Your task to perform on an android device: turn notification dots on Image 0: 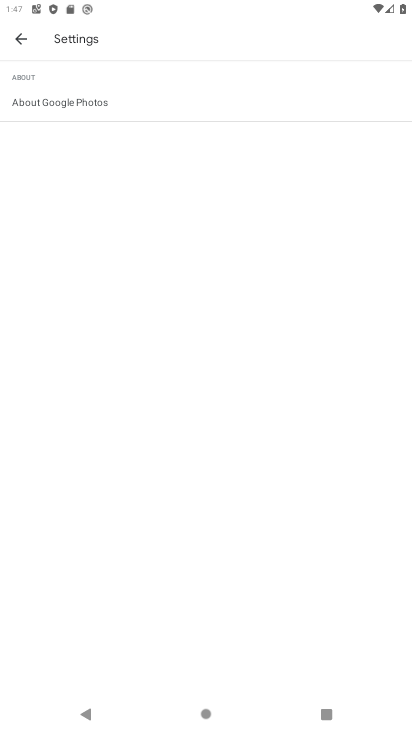
Step 0: press home button
Your task to perform on an android device: turn notification dots on Image 1: 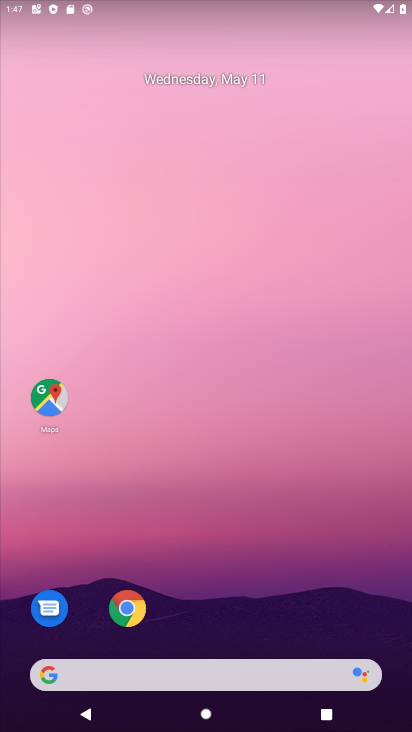
Step 1: drag from (296, 565) to (325, 268)
Your task to perform on an android device: turn notification dots on Image 2: 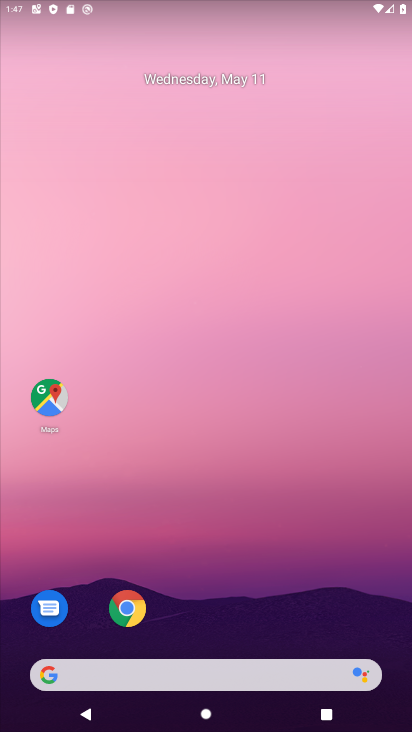
Step 2: drag from (315, 576) to (332, 179)
Your task to perform on an android device: turn notification dots on Image 3: 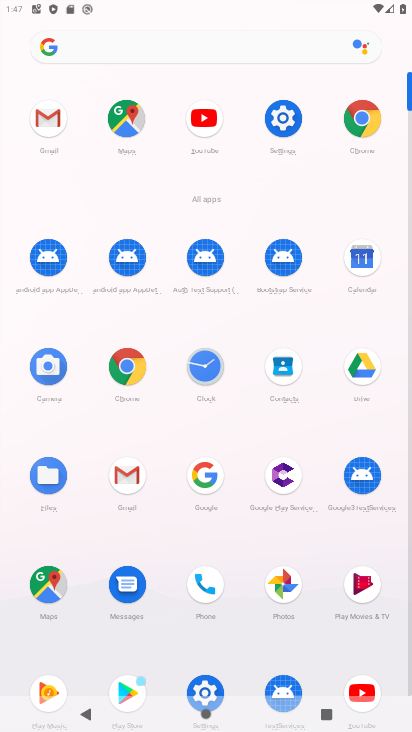
Step 3: click (280, 121)
Your task to perform on an android device: turn notification dots on Image 4: 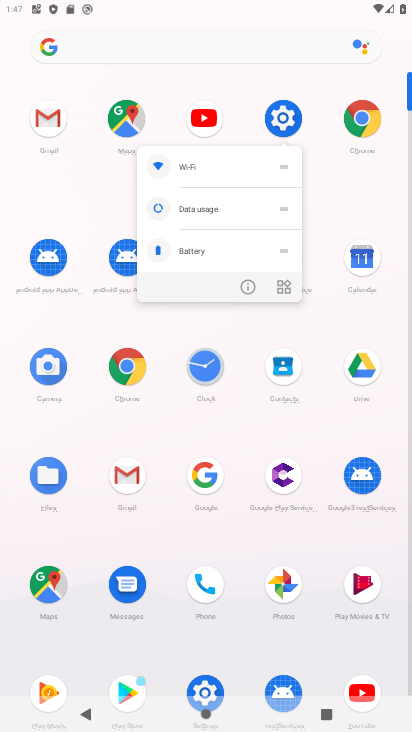
Step 4: click (280, 121)
Your task to perform on an android device: turn notification dots on Image 5: 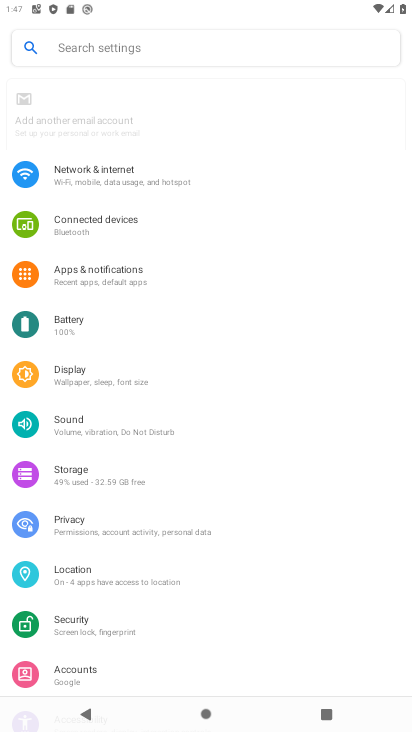
Step 5: click (280, 121)
Your task to perform on an android device: turn notification dots on Image 6: 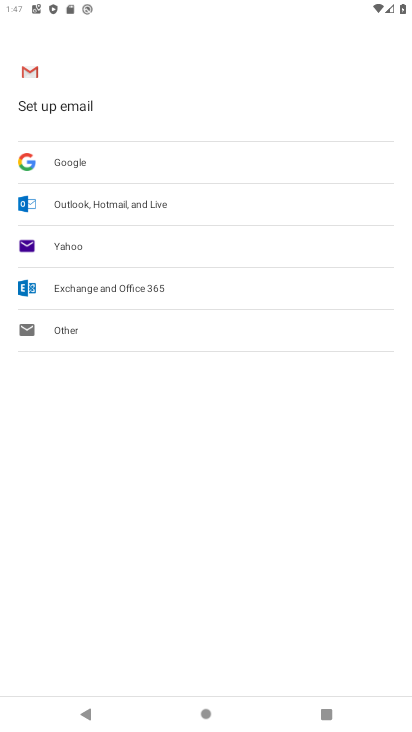
Step 6: press back button
Your task to perform on an android device: turn notification dots on Image 7: 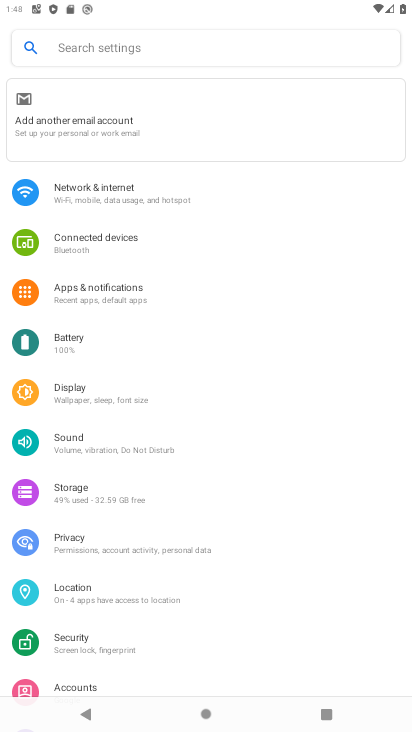
Step 7: drag from (226, 558) to (229, 165)
Your task to perform on an android device: turn notification dots on Image 8: 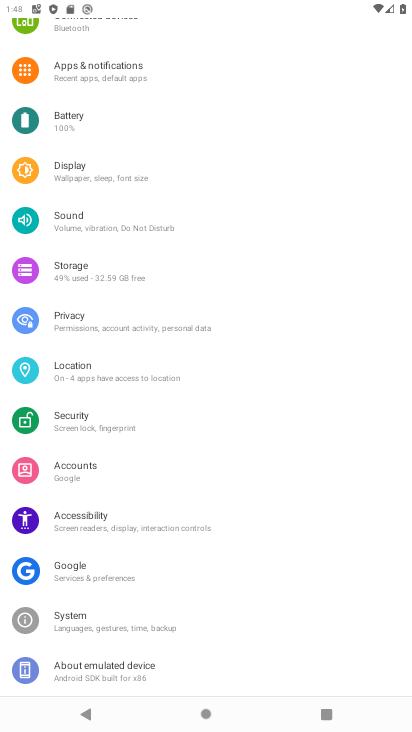
Step 8: click (140, 57)
Your task to perform on an android device: turn notification dots on Image 9: 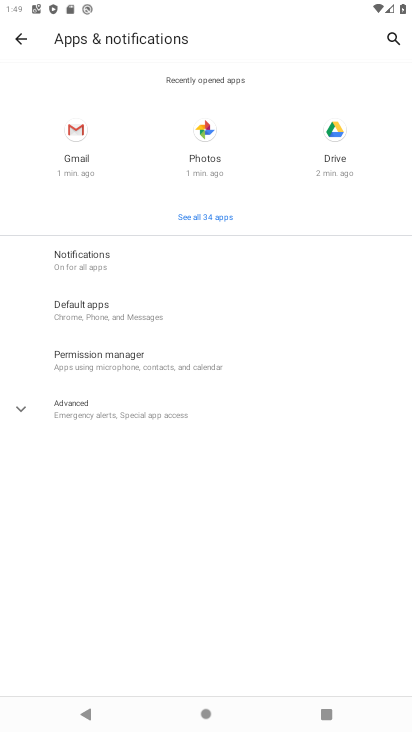
Step 9: click (89, 255)
Your task to perform on an android device: turn notification dots on Image 10: 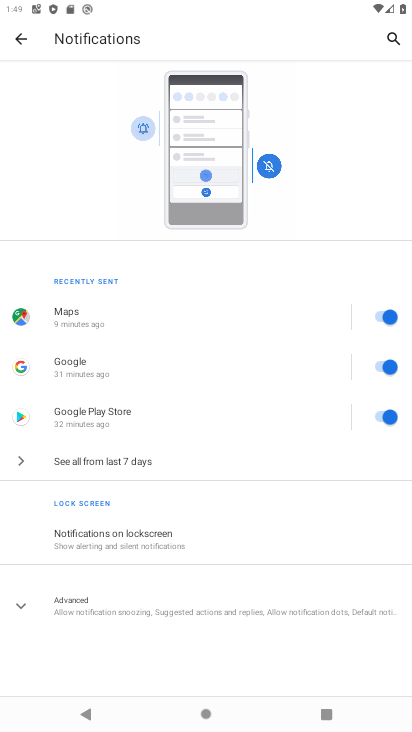
Step 10: drag from (184, 593) to (178, 254)
Your task to perform on an android device: turn notification dots on Image 11: 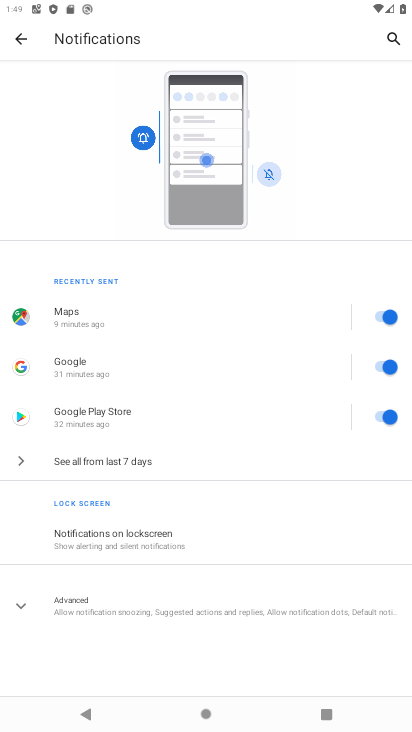
Step 11: click (275, 602)
Your task to perform on an android device: turn notification dots on Image 12: 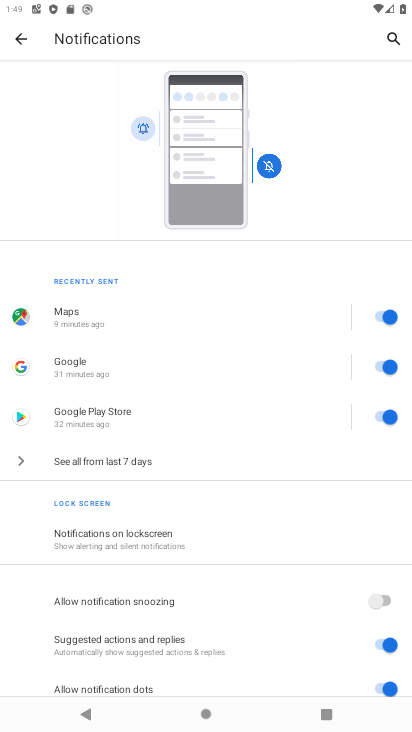
Step 12: task complete